Your task to perform on an android device: Go to battery settings Image 0: 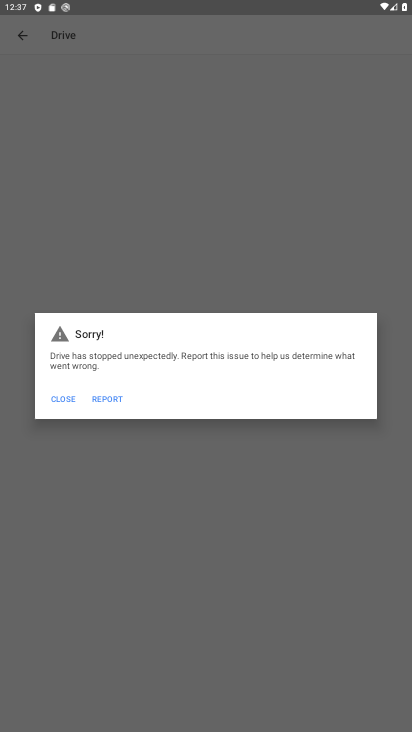
Step 0: press home button
Your task to perform on an android device: Go to battery settings Image 1: 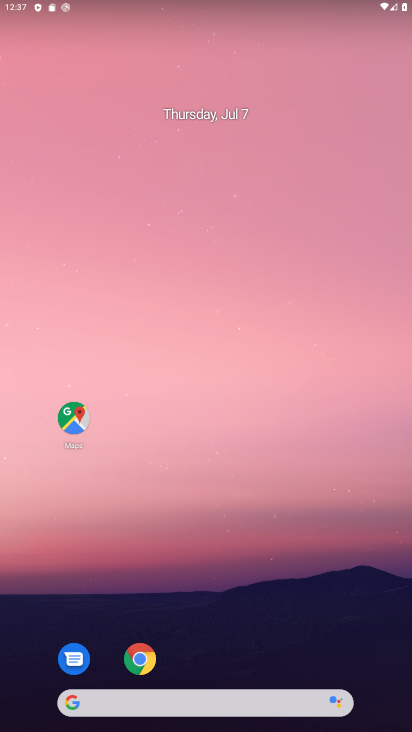
Step 1: drag from (257, 627) to (209, 234)
Your task to perform on an android device: Go to battery settings Image 2: 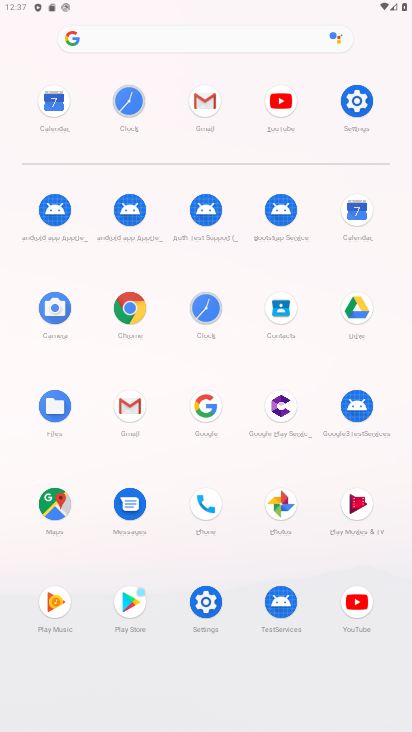
Step 2: click (348, 92)
Your task to perform on an android device: Go to battery settings Image 3: 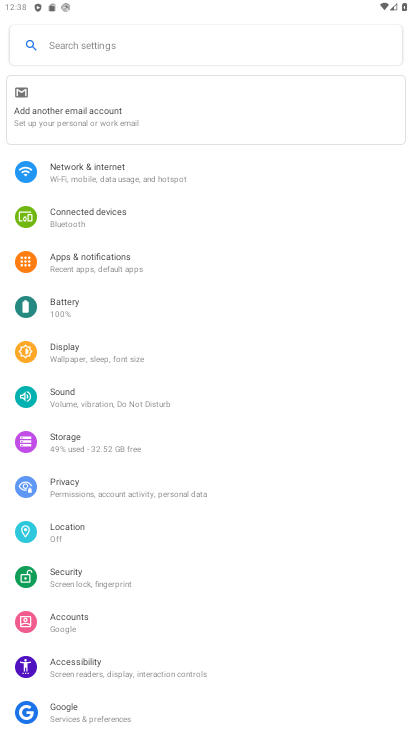
Step 3: click (56, 304)
Your task to perform on an android device: Go to battery settings Image 4: 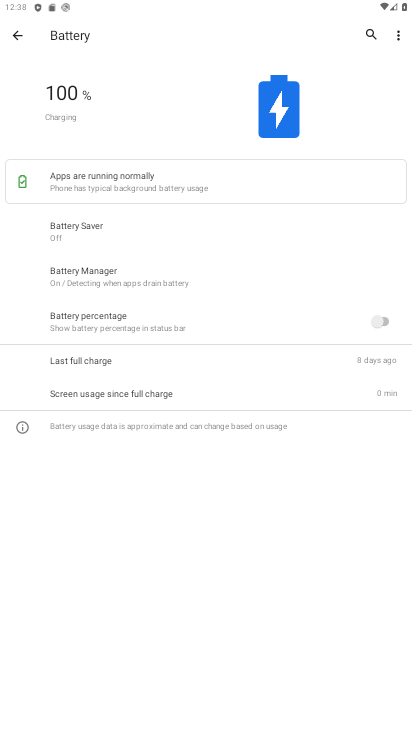
Step 4: task complete